Your task to perform on an android device: toggle improve location accuracy Image 0: 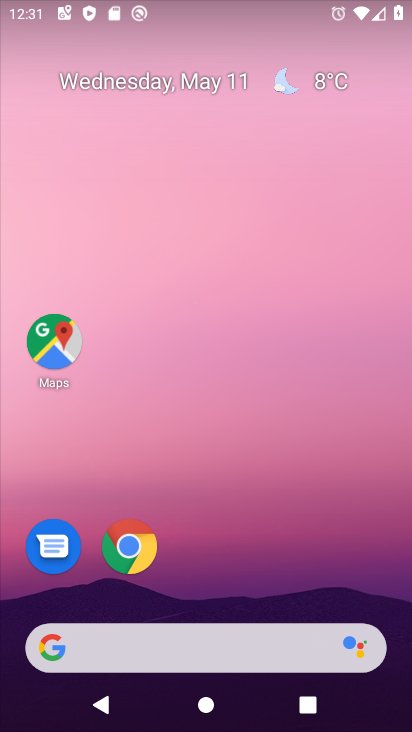
Step 0: drag from (265, 648) to (412, 203)
Your task to perform on an android device: toggle improve location accuracy Image 1: 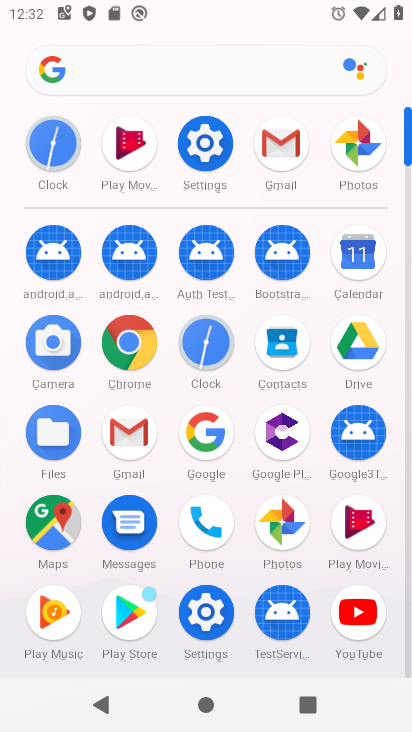
Step 1: click (222, 139)
Your task to perform on an android device: toggle improve location accuracy Image 2: 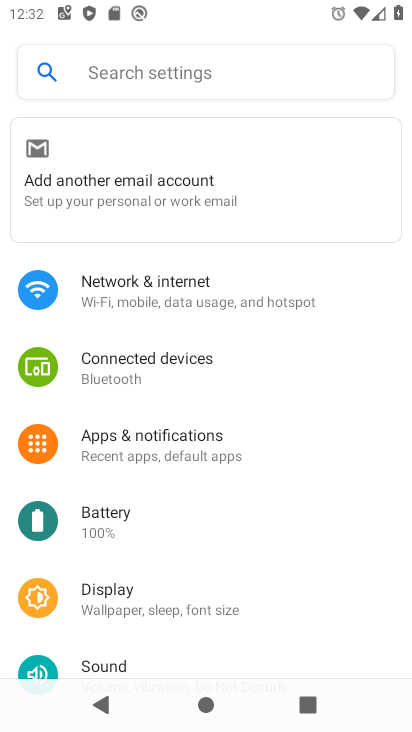
Step 2: drag from (176, 533) to (322, 181)
Your task to perform on an android device: toggle improve location accuracy Image 3: 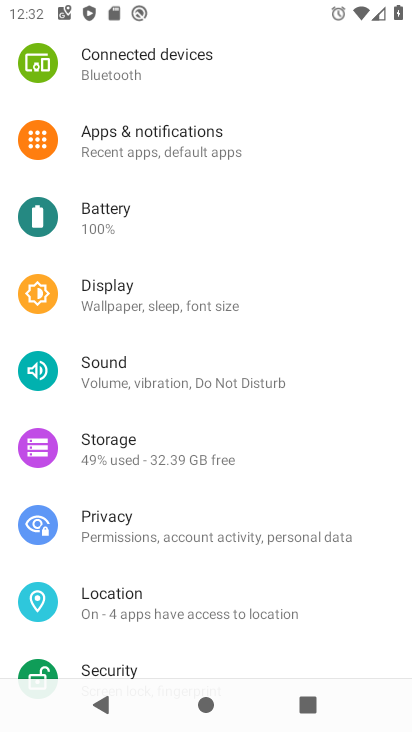
Step 3: click (146, 598)
Your task to perform on an android device: toggle improve location accuracy Image 4: 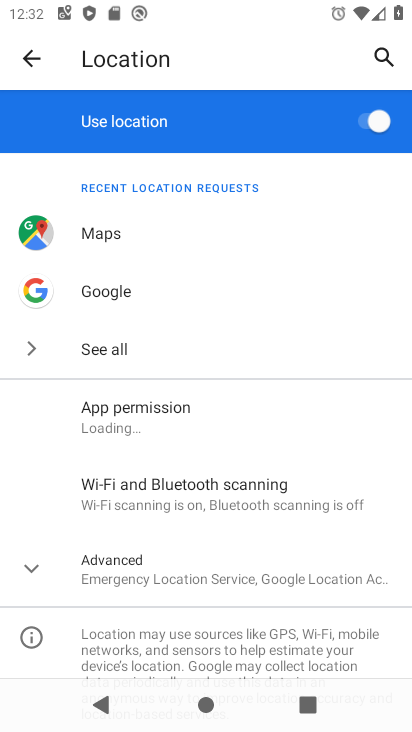
Step 4: drag from (267, 478) to (323, 219)
Your task to perform on an android device: toggle improve location accuracy Image 5: 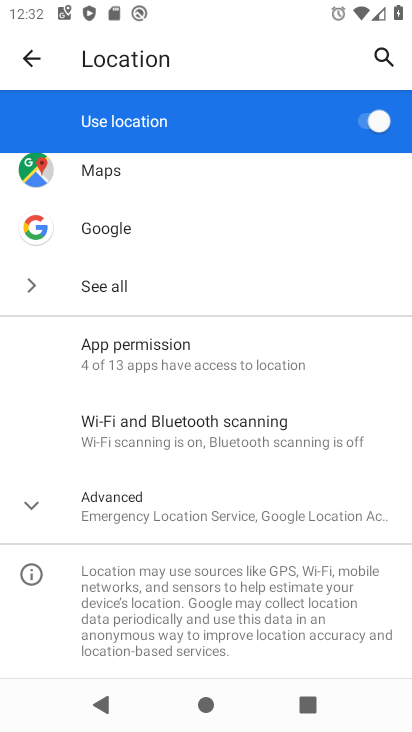
Step 5: click (206, 527)
Your task to perform on an android device: toggle improve location accuracy Image 6: 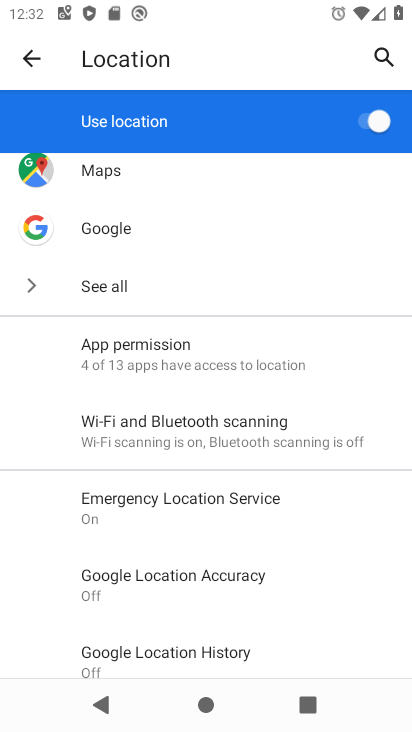
Step 6: click (182, 582)
Your task to perform on an android device: toggle improve location accuracy Image 7: 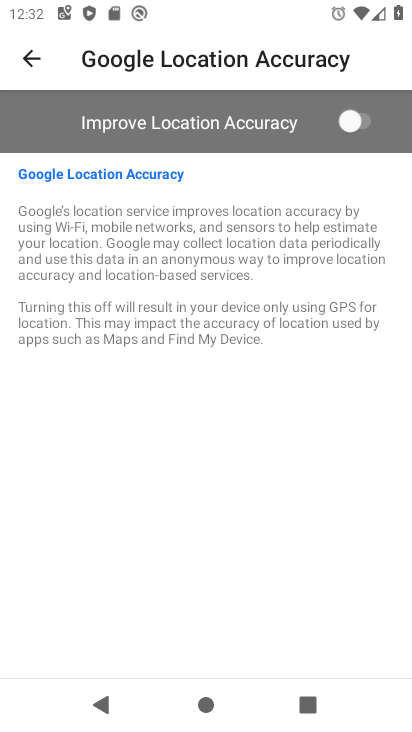
Step 7: click (369, 121)
Your task to perform on an android device: toggle improve location accuracy Image 8: 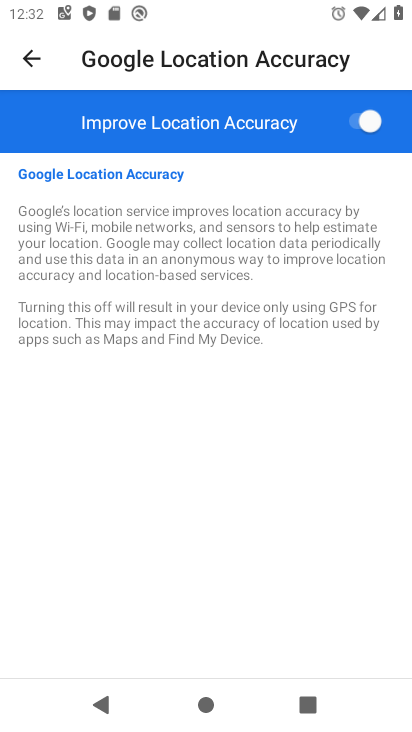
Step 8: task complete